Your task to perform on an android device: Search for sushi restaurants on Maps Image 0: 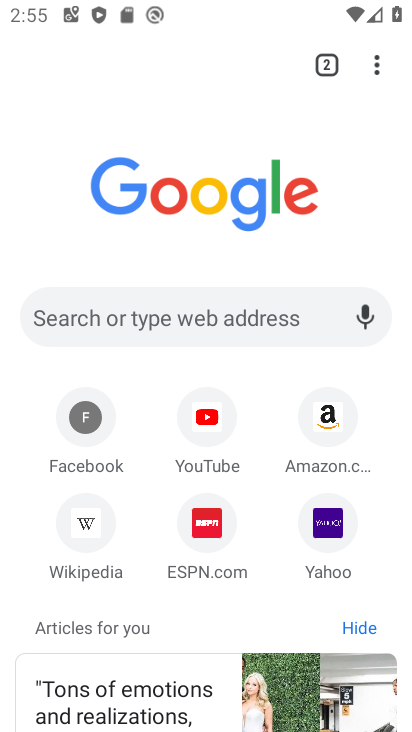
Step 0: press home button
Your task to perform on an android device: Search for sushi restaurants on Maps Image 1: 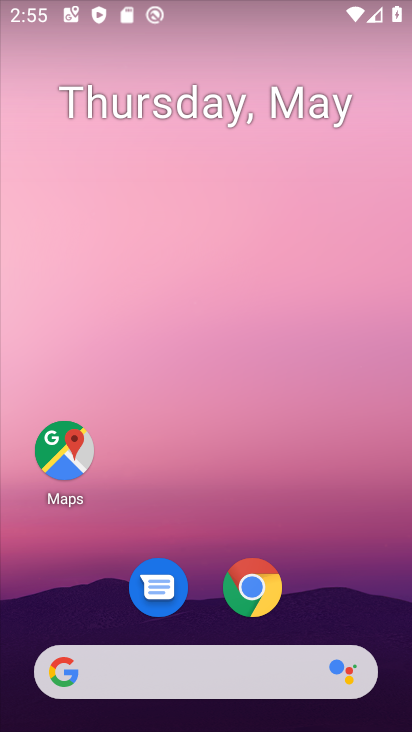
Step 1: click (62, 468)
Your task to perform on an android device: Search for sushi restaurants on Maps Image 2: 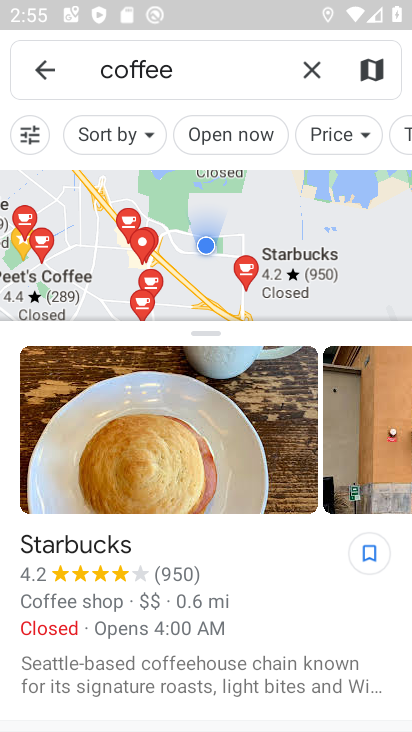
Step 2: click (184, 72)
Your task to perform on an android device: Search for sushi restaurants on Maps Image 3: 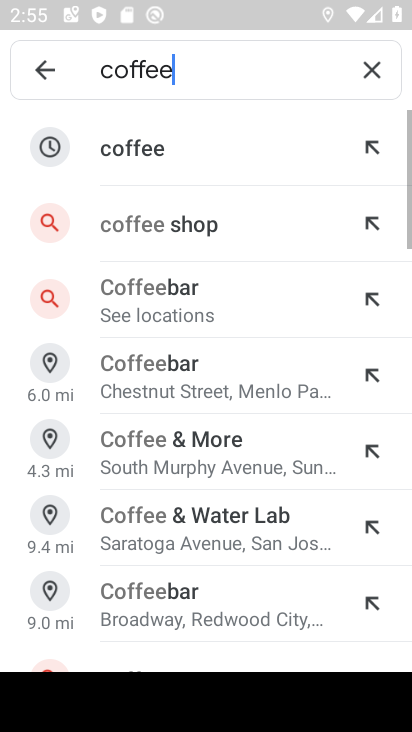
Step 3: click (364, 74)
Your task to perform on an android device: Search for sushi restaurants on Maps Image 4: 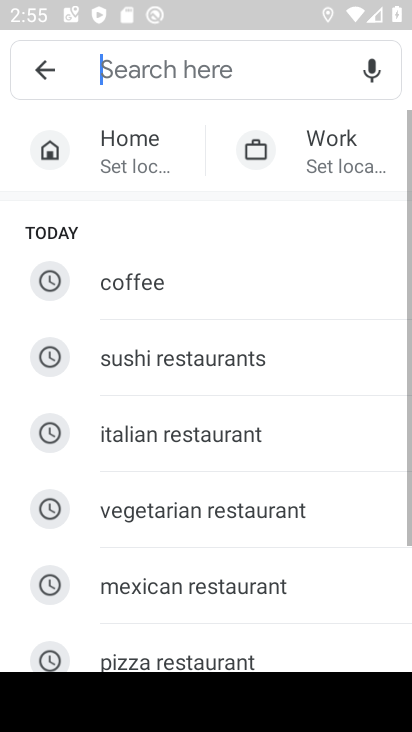
Step 4: click (279, 350)
Your task to perform on an android device: Search for sushi restaurants on Maps Image 5: 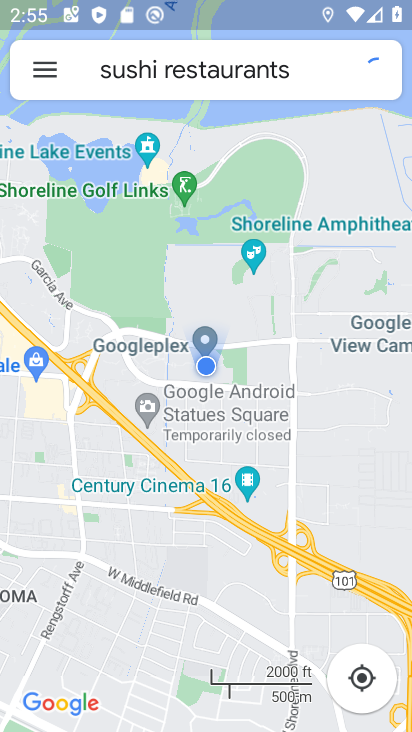
Step 5: task complete